Your task to perform on an android device: open app "Messages" Image 0: 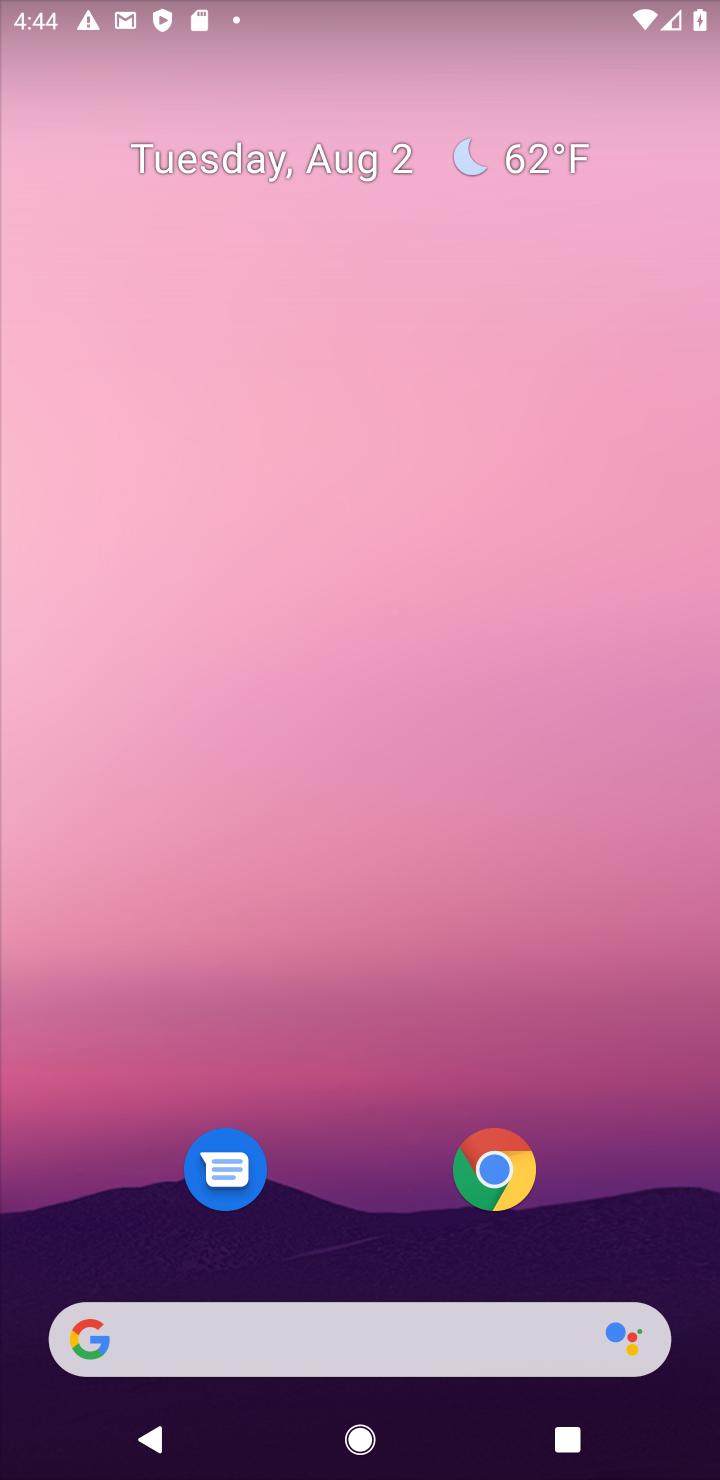
Step 0: click (232, 1176)
Your task to perform on an android device: open app "Messages" Image 1: 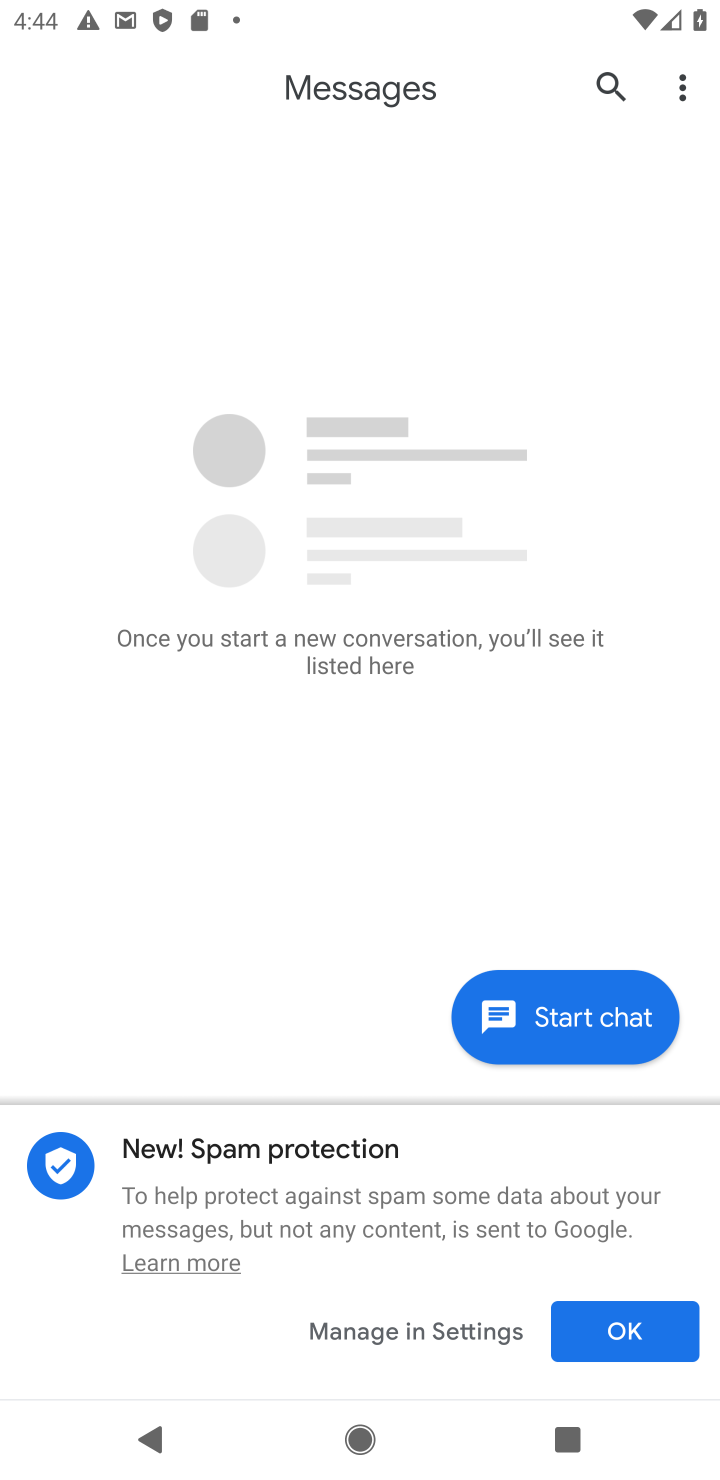
Step 1: task complete